Your task to perform on an android device: check the backup settings in the google photos Image 0: 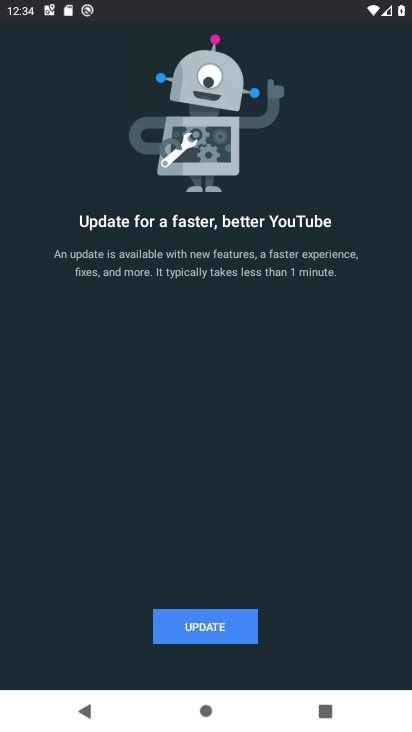
Step 0: press home button
Your task to perform on an android device: check the backup settings in the google photos Image 1: 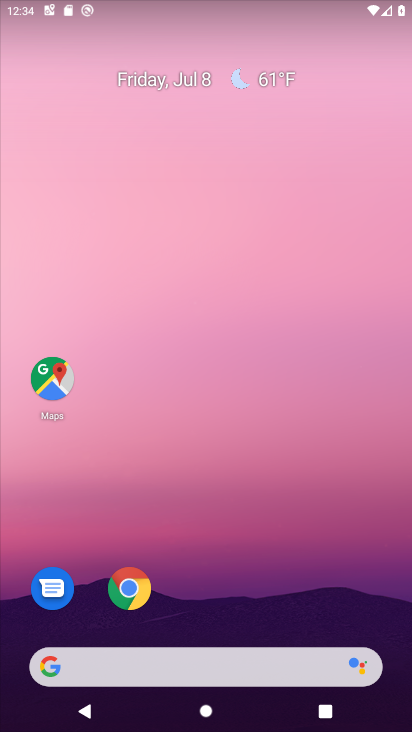
Step 1: drag from (277, 608) to (203, 59)
Your task to perform on an android device: check the backup settings in the google photos Image 2: 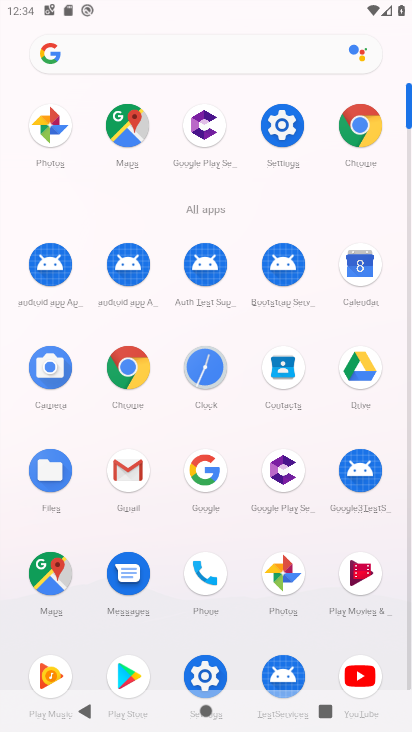
Step 2: click (283, 550)
Your task to perform on an android device: check the backup settings in the google photos Image 3: 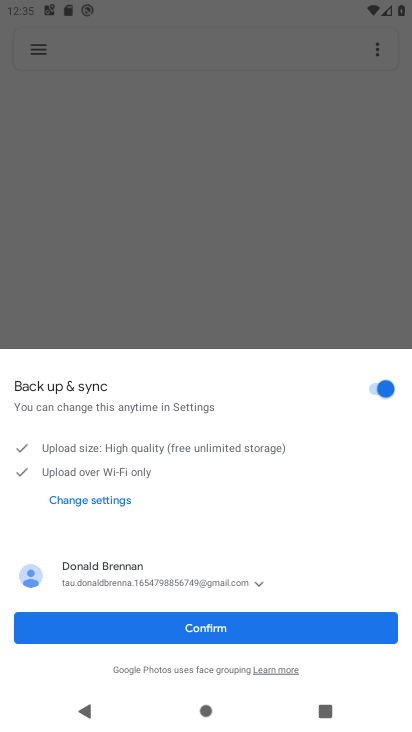
Step 3: click (173, 627)
Your task to perform on an android device: check the backup settings in the google photos Image 4: 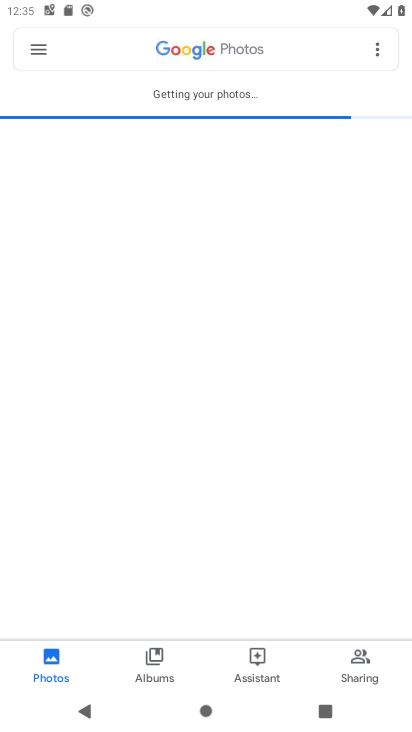
Step 4: click (42, 44)
Your task to perform on an android device: check the backup settings in the google photos Image 5: 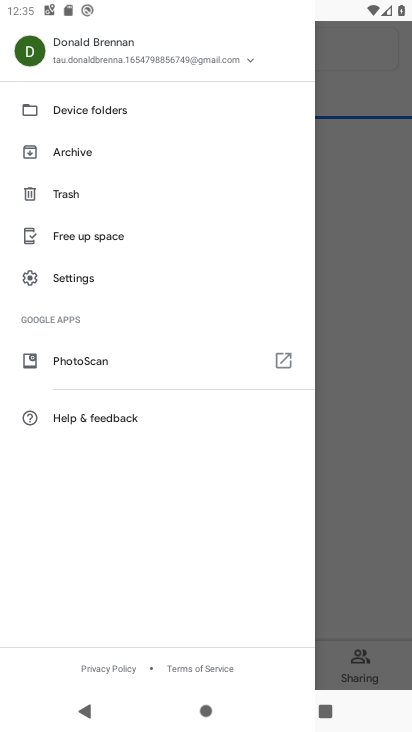
Step 5: click (183, 57)
Your task to perform on an android device: check the backup settings in the google photos Image 6: 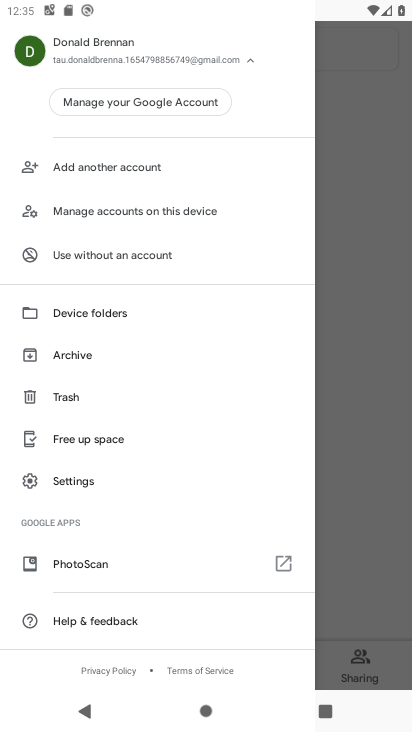
Step 6: click (66, 474)
Your task to perform on an android device: check the backup settings in the google photos Image 7: 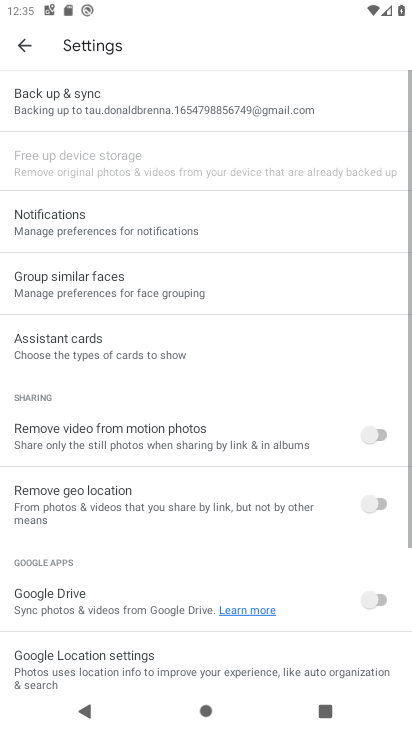
Step 7: click (95, 101)
Your task to perform on an android device: check the backup settings in the google photos Image 8: 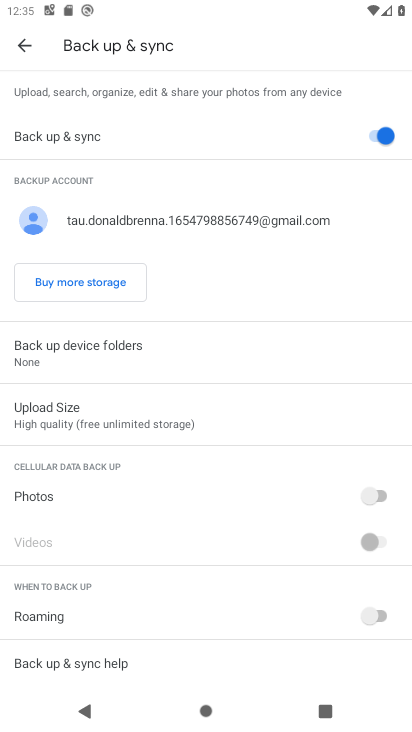
Step 8: task complete